Your task to perform on an android device: Open Chrome and go to the settings page Image 0: 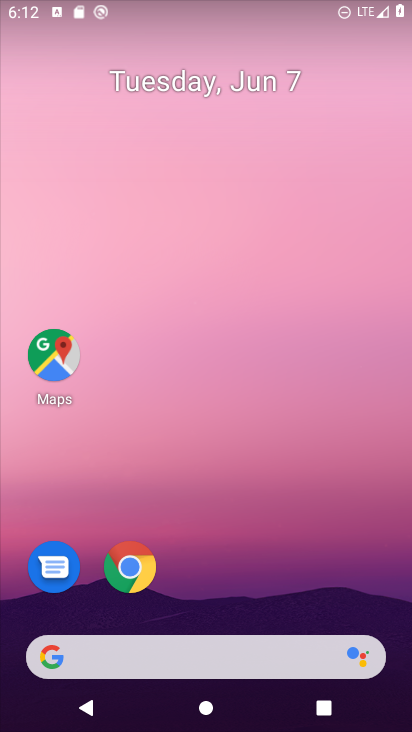
Step 0: drag from (265, 656) to (314, 73)
Your task to perform on an android device: Open Chrome and go to the settings page Image 1: 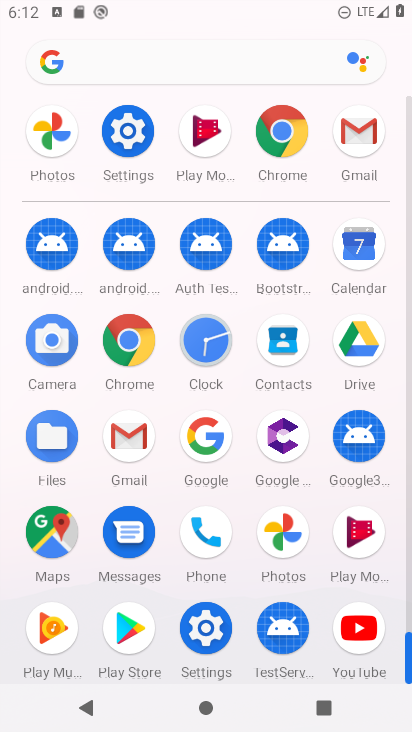
Step 1: click (134, 354)
Your task to perform on an android device: Open Chrome and go to the settings page Image 2: 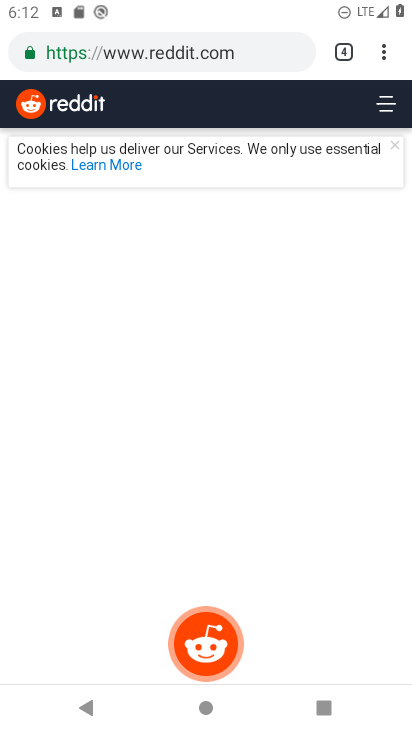
Step 2: click (387, 52)
Your task to perform on an android device: Open Chrome and go to the settings page Image 3: 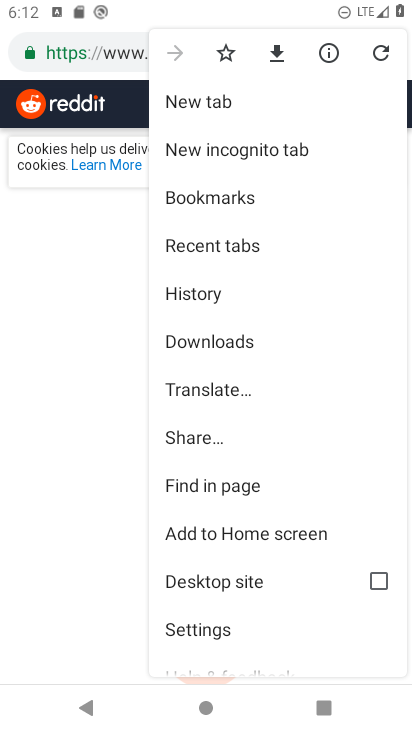
Step 3: click (219, 627)
Your task to perform on an android device: Open Chrome and go to the settings page Image 4: 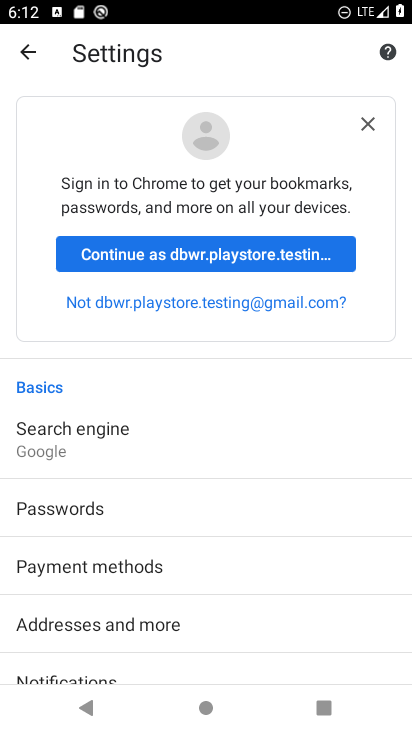
Step 4: task complete